Your task to perform on an android device: turn on sleep mode Image 0: 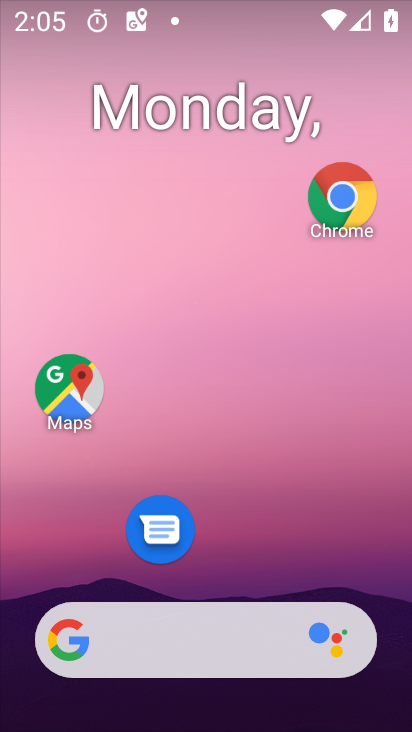
Step 0: drag from (235, 623) to (153, 16)
Your task to perform on an android device: turn on sleep mode Image 1: 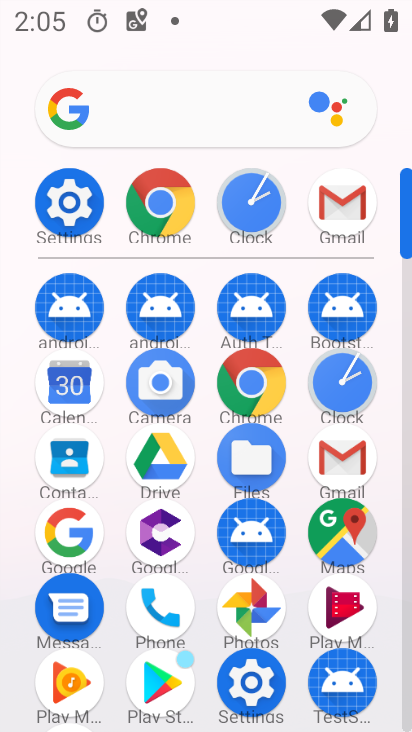
Step 1: click (63, 201)
Your task to perform on an android device: turn on sleep mode Image 2: 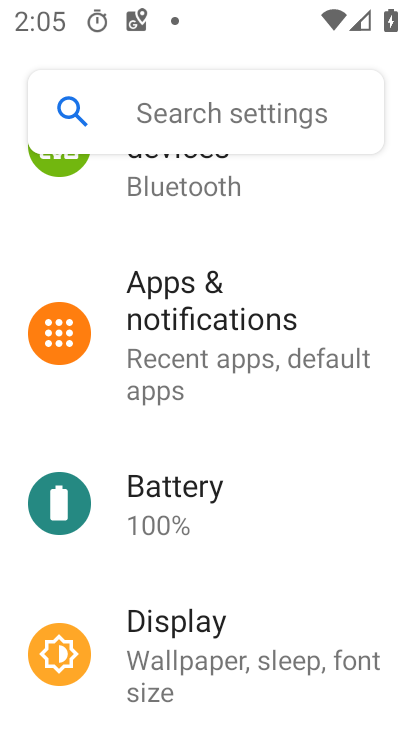
Step 2: click (173, 622)
Your task to perform on an android device: turn on sleep mode Image 3: 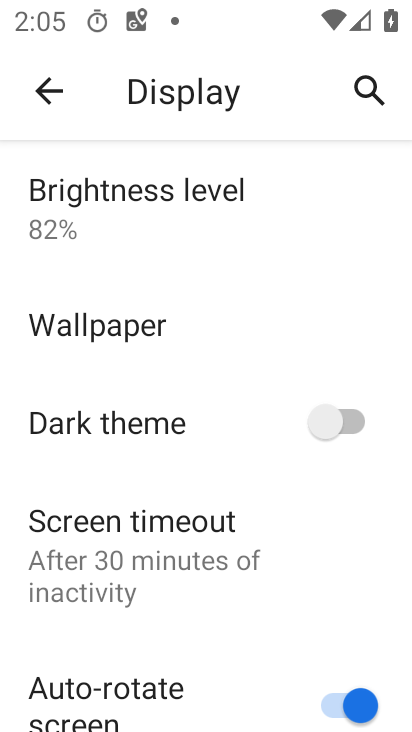
Step 3: task complete